Your task to perform on an android device: check data usage Image 0: 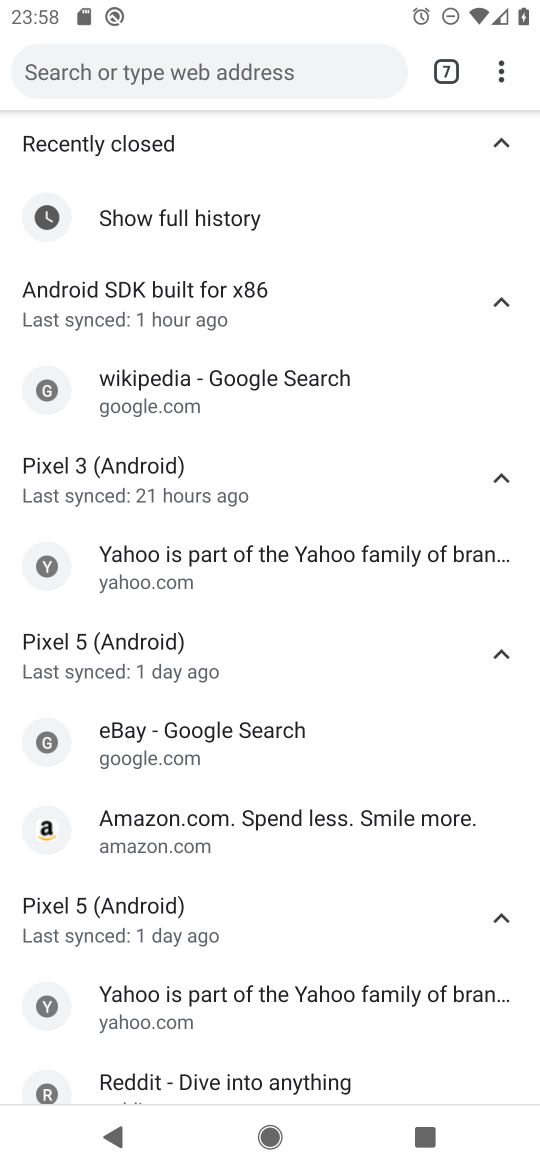
Step 0: press home button
Your task to perform on an android device: check data usage Image 1: 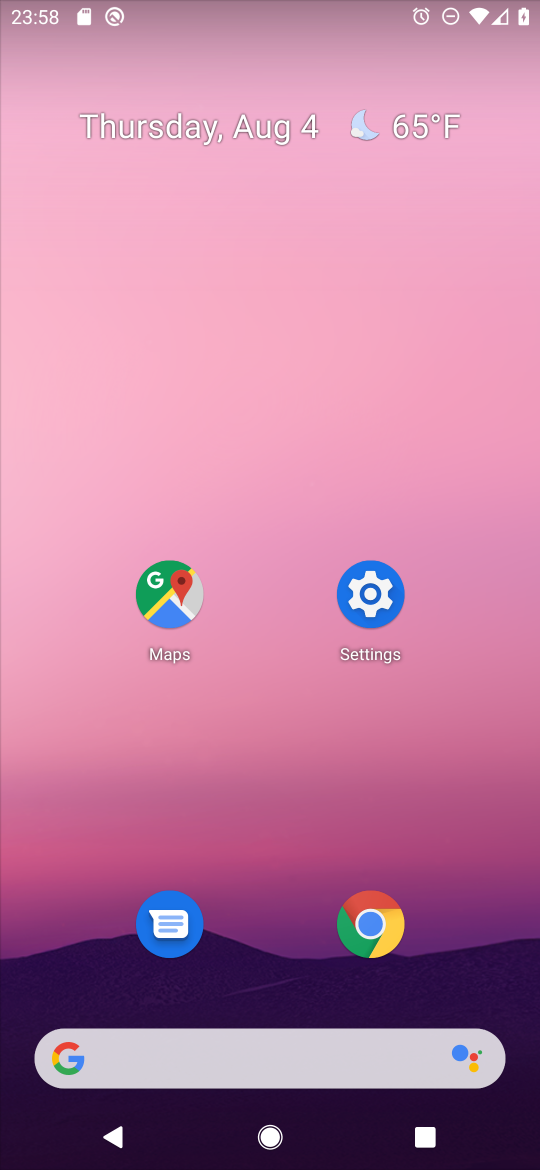
Step 1: click (376, 602)
Your task to perform on an android device: check data usage Image 2: 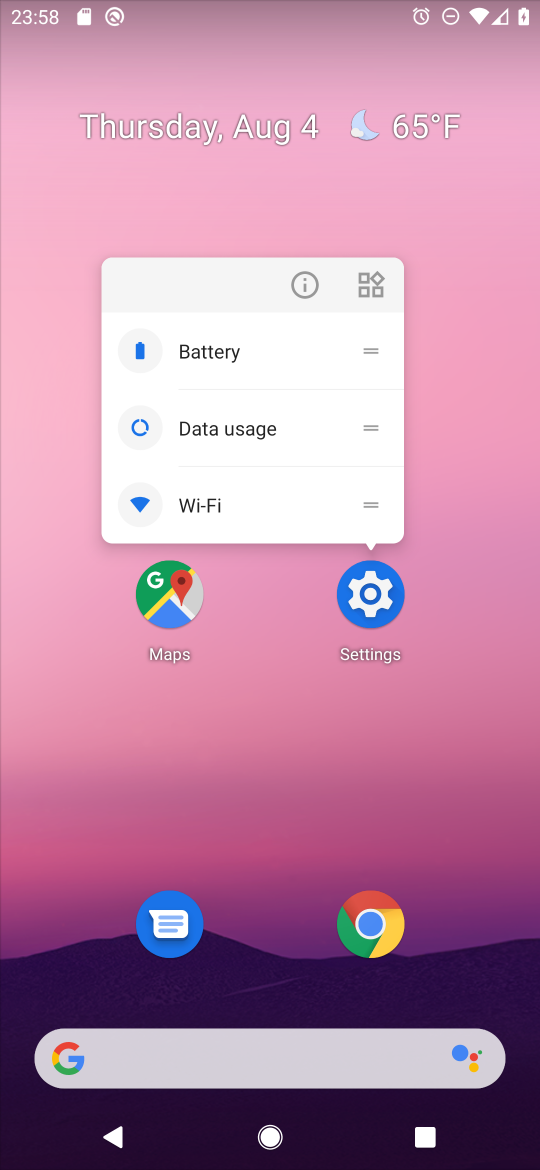
Step 2: click (376, 604)
Your task to perform on an android device: check data usage Image 3: 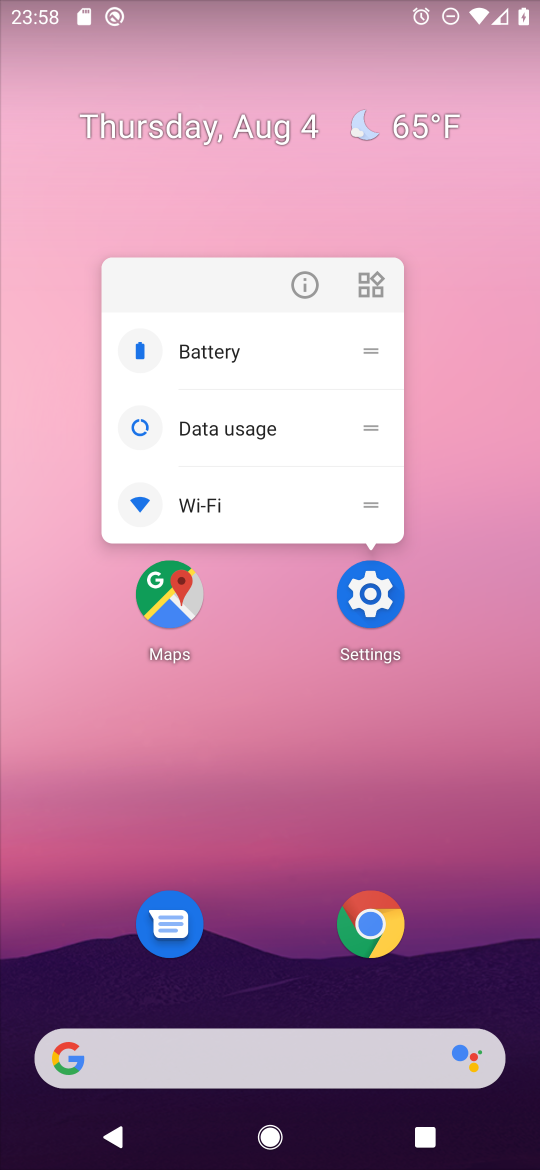
Step 3: click (376, 604)
Your task to perform on an android device: check data usage Image 4: 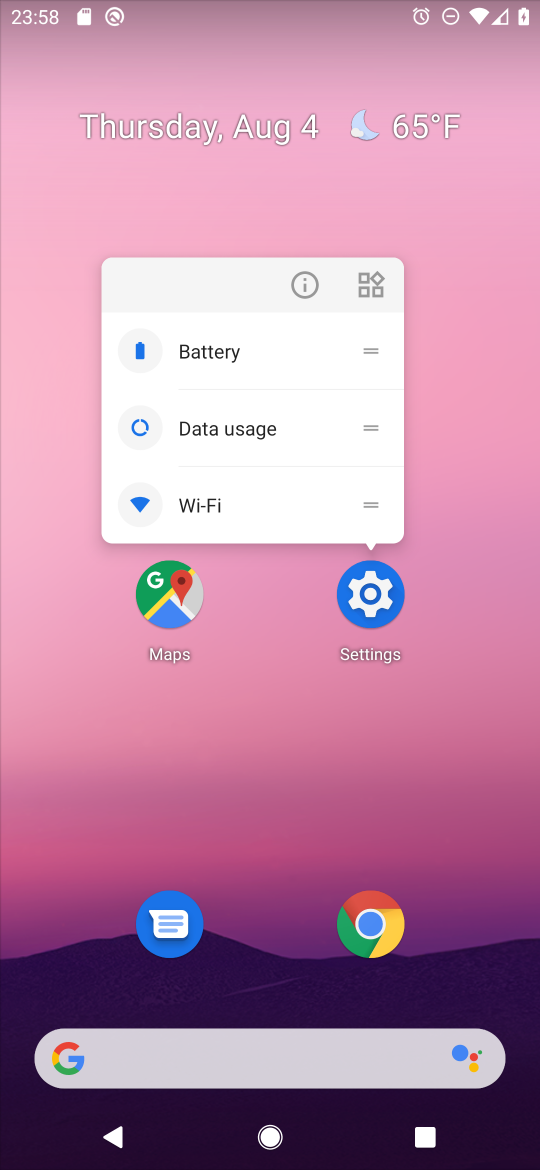
Step 4: click (376, 604)
Your task to perform on an android device: check data usage Image 5: 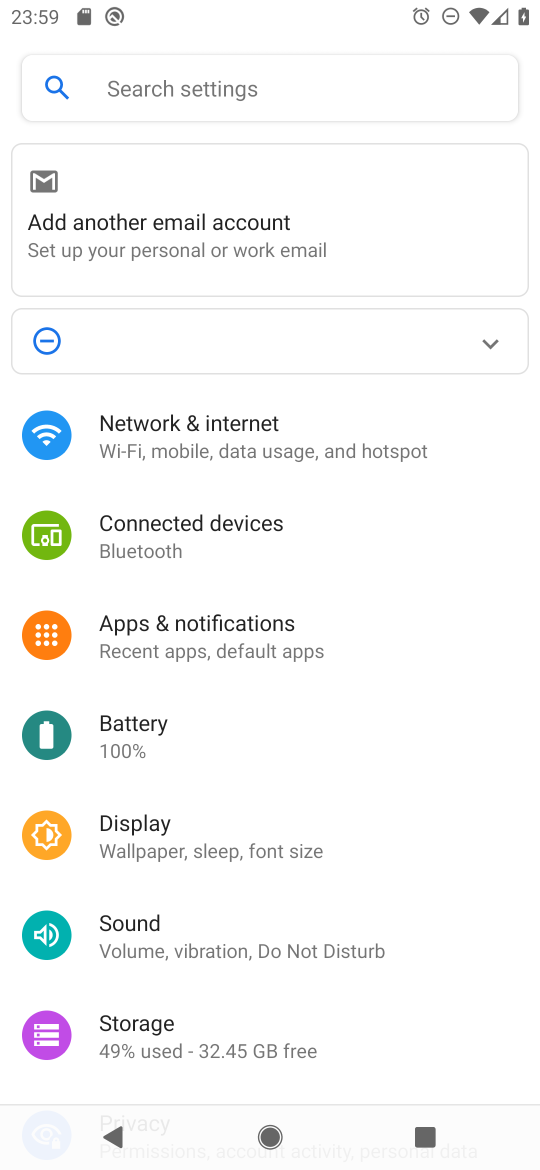
Step 5: click (250, 433)
Your task to perform on an android device: check data usage Image 6: 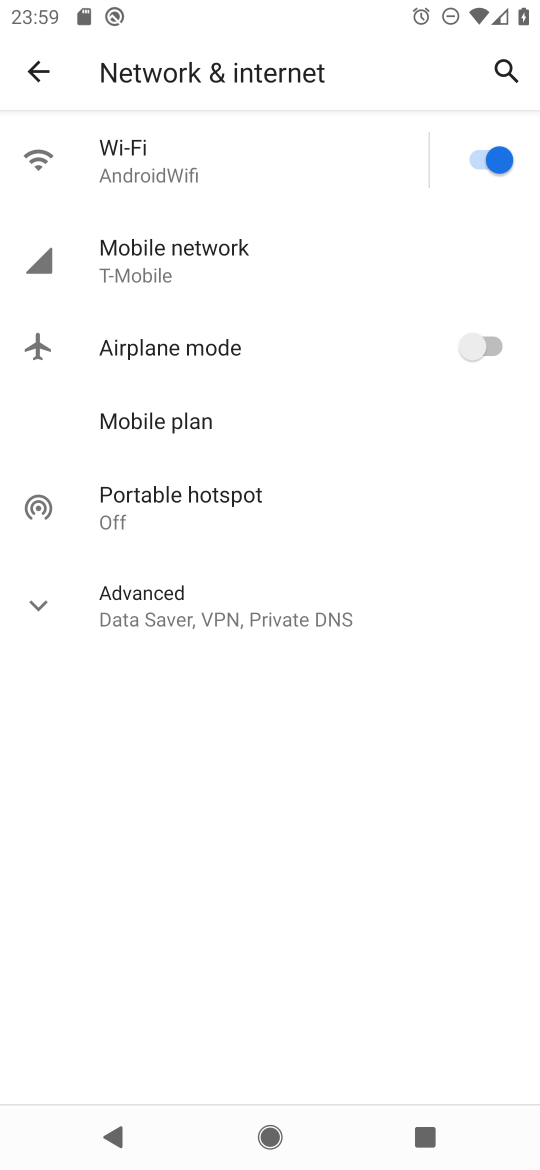
Step 6: click (130, 175)
Your task to perform on an android device: check data usage Image 7: 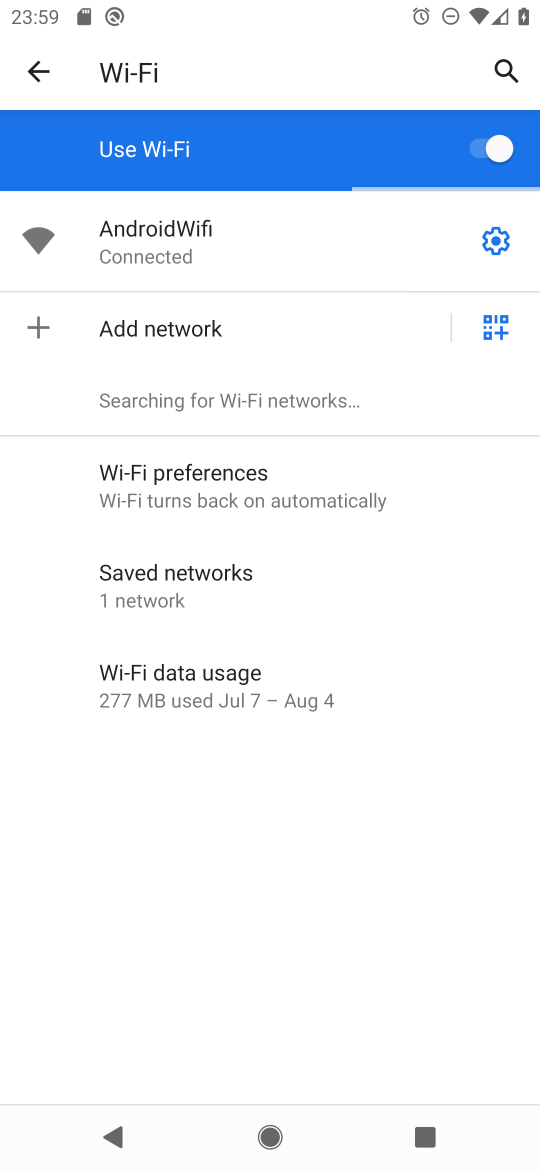
Step 7: click (190, 666)
Your task to perform on an android device: check data usage Image 8: 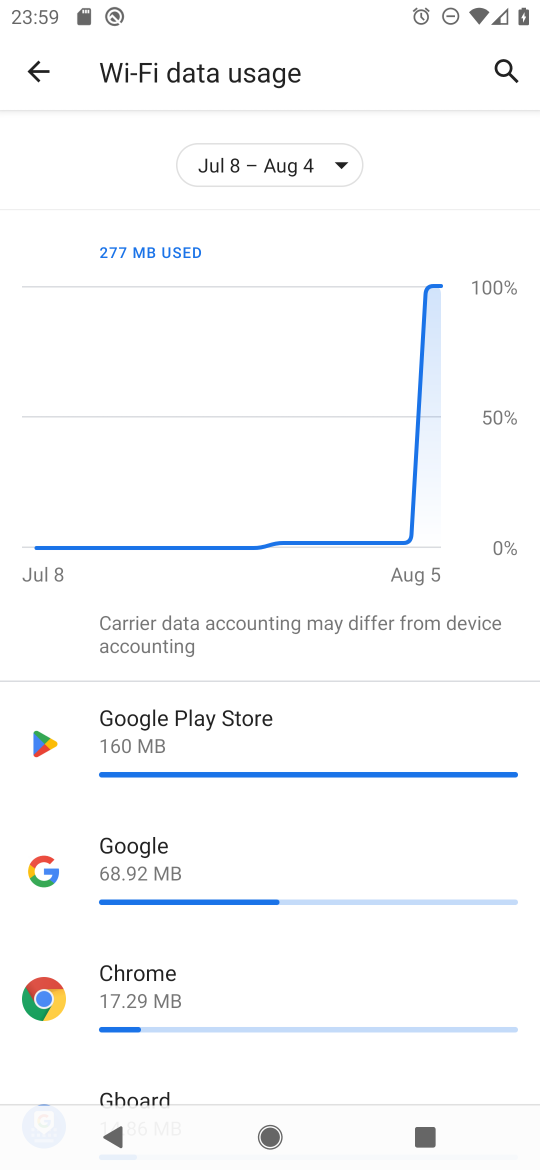
Step 8: task complete